Your task to perform on an android device: Go to accessibility settings Image 0: 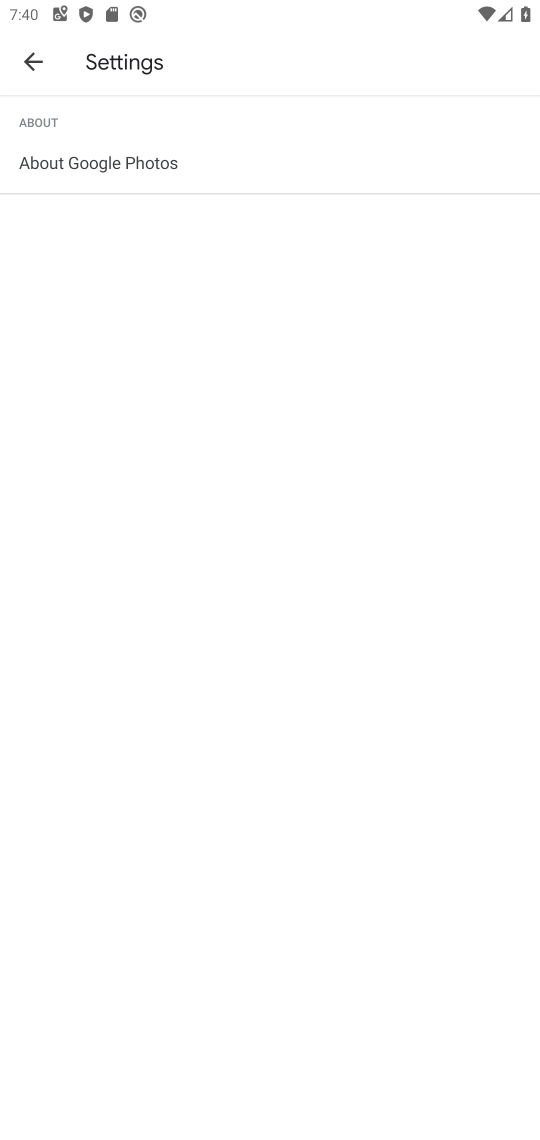
Step 0: press home button
Your task to perform on an android device: Go to accessibility settings Image 1: 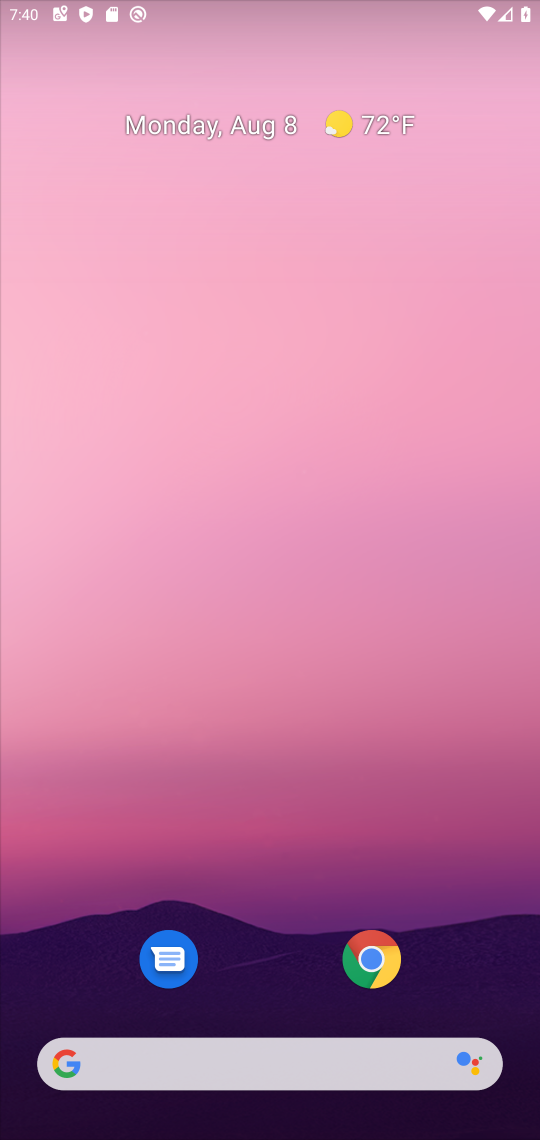
Step 1: drag from (482, 995) to (323, 58)
Your task to perform on an android device: Go to accessibility settings Image 2: 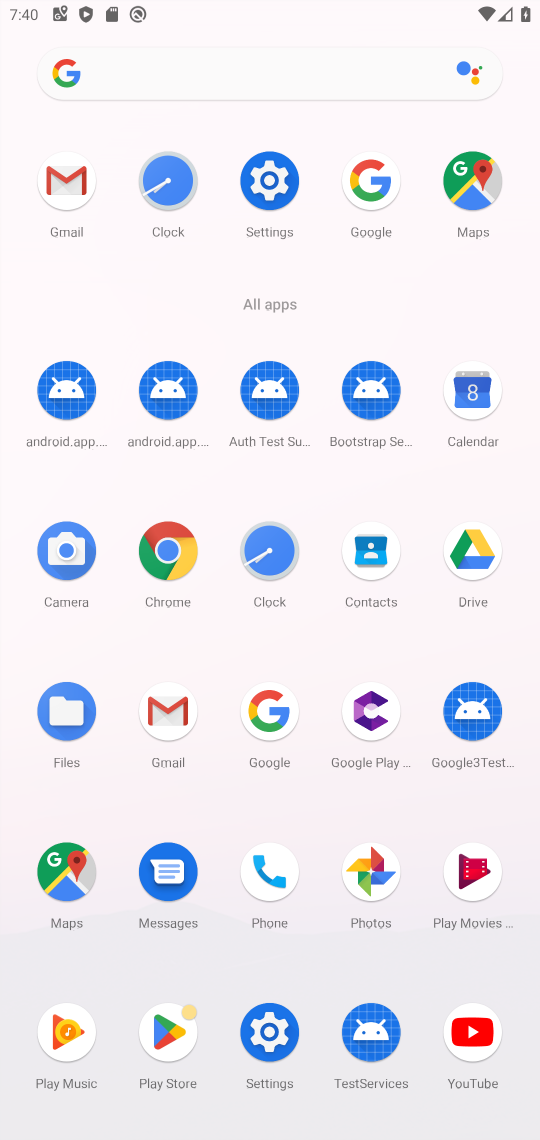
Step 2: click (266, 1010)
Your task to perform on an android device: Go to accessibility settings Image 3: 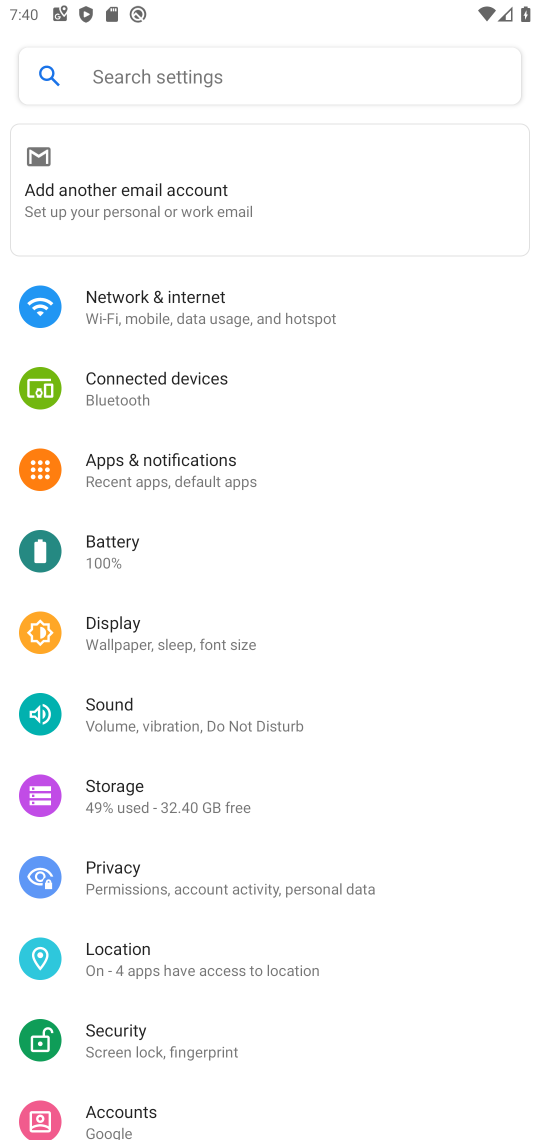
Step 3: drag from (199, 1096) to (256, 180)
Your task to perform on an android device: Go to accessibility settings Image 4: 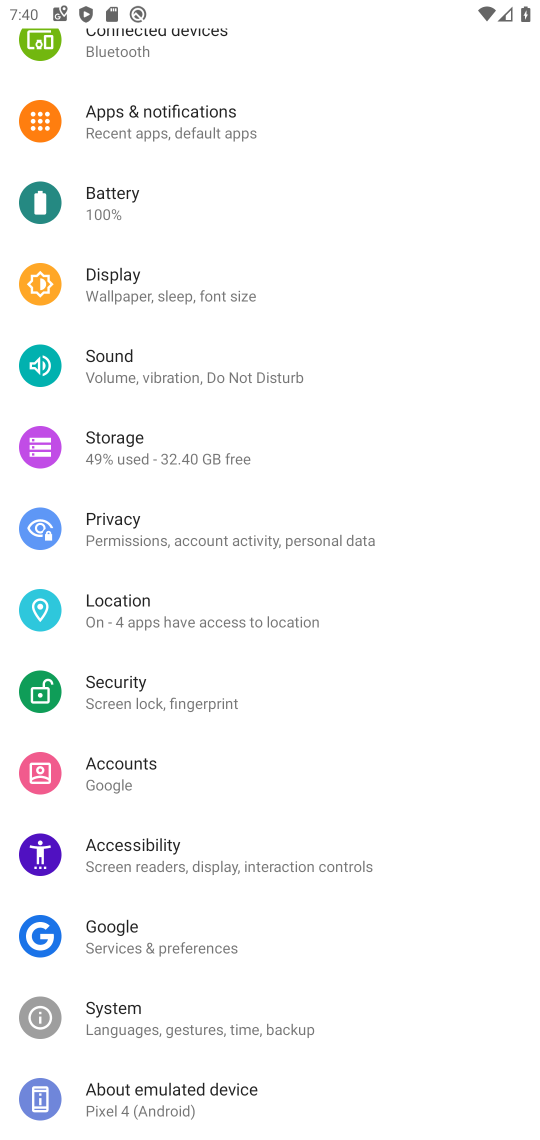
Step 4: click (137, 852)
Your task to perform on an android device: Go to accessibility settings Image 5: 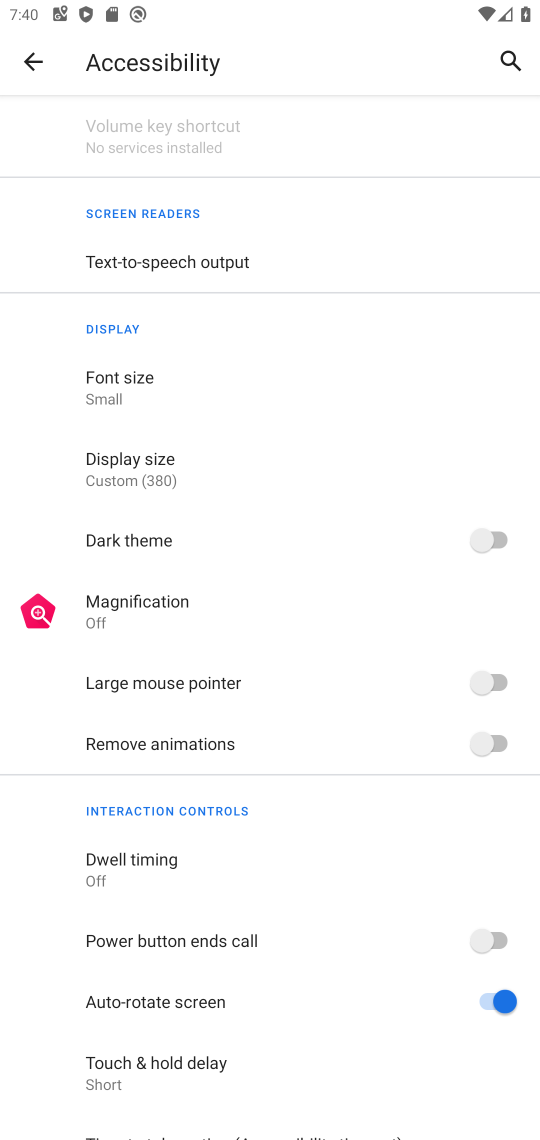
Step 5: task complete